Your task to perform on an android device: turn notification dots off Image 0: 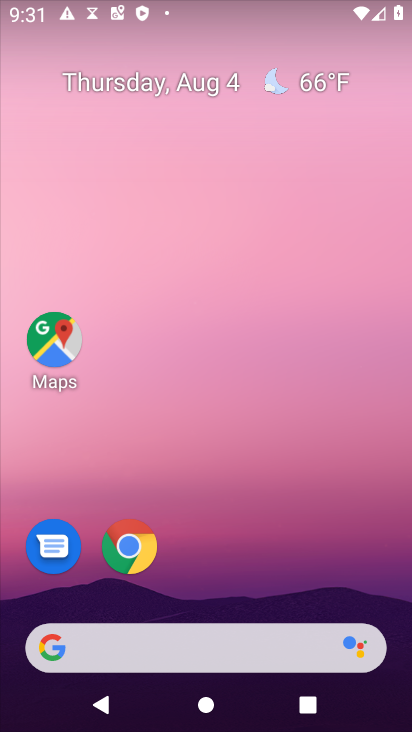
Step 0: press home button
Your task to perform on an android device: turn notification dots off Image 1: 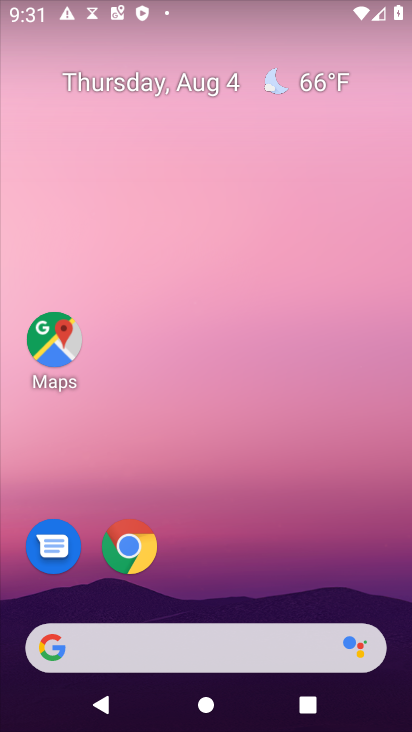
Step 1: drag from (243, 578) to (283, 0)
Your task to perform on an android device: turn notification dots off Image 2: 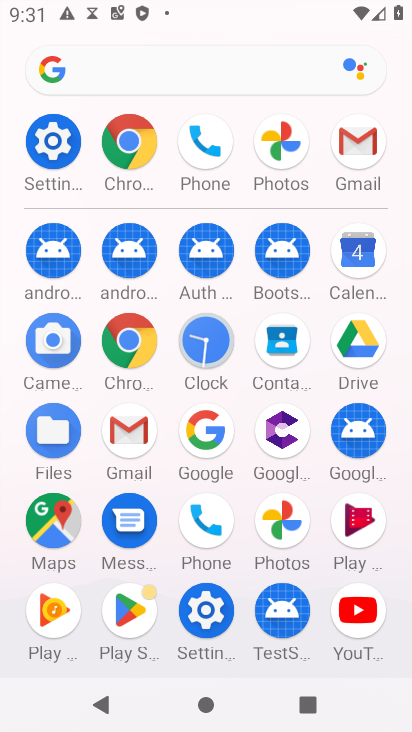
Step 2: click (50, 155)
Your task to perform on an android device: turn notification dots off Image 3: 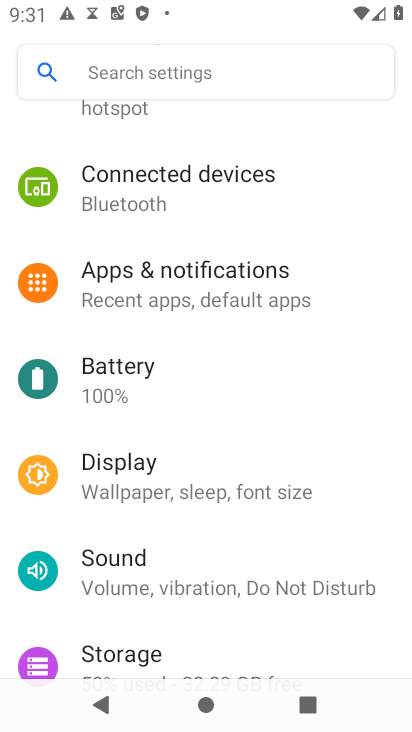
Step 3: click (186, 283)
Your task to perform on an android device: turn notification dots off Image 4: 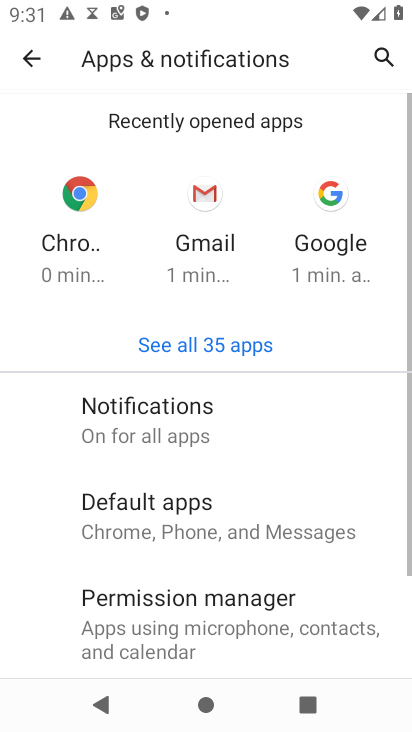
Step 4: click (147, 417)
Your task to perform on an android device: turn notification dots off Image 5: 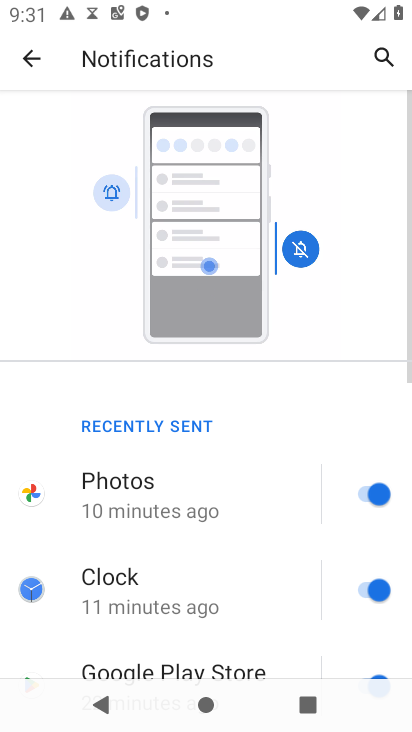
Step 5: drag from (287, 621) to (318, 235)
Your task to perform on an android device: turn notification dots off Image 6: 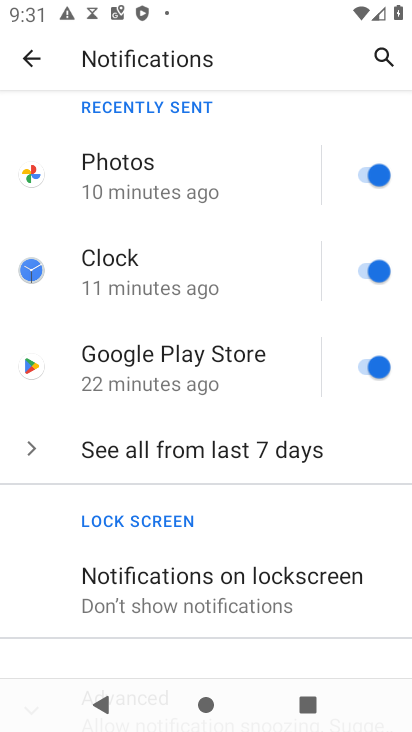
Step 6: drag from (369, 596) to (373, 319)
Your task to perform on an android device: turn notification dots off Image 7: 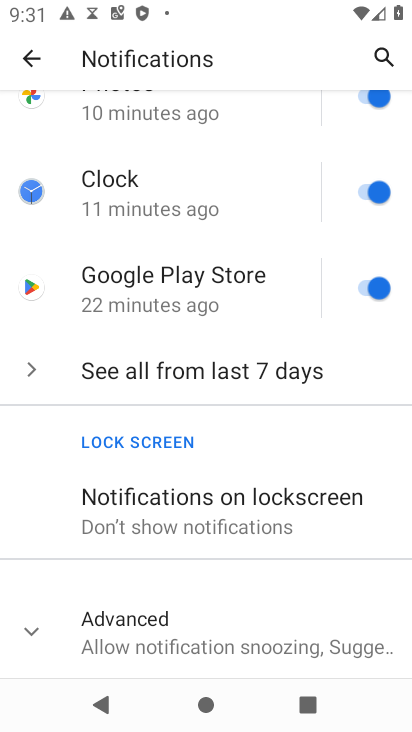
Step 7: click (115, 650)
Your task to perform on an android device: turn notification dots off Image 8: 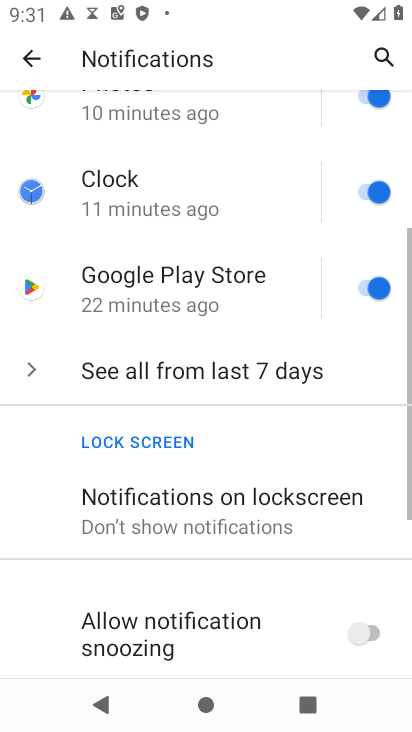
Step 8: drag from (295, 604) to (319, 273)
Your task to perform on an android device: turn notification dots off Image 9: 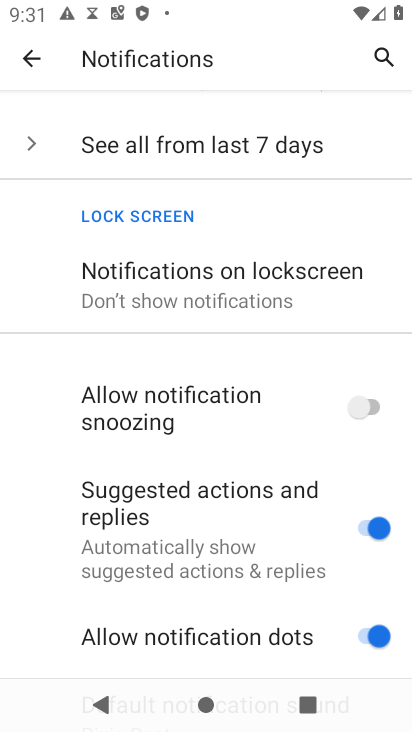
Step 9: click (372, 640)
Your task to perform on an android device: turn notification dots off Image 10: 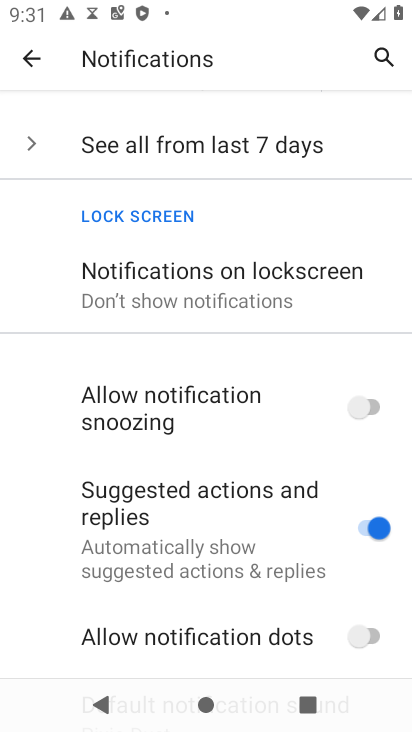
Step 10: task complete